Your task to perform on an android device: open chrome and create a bookmark for the current page Image 0: 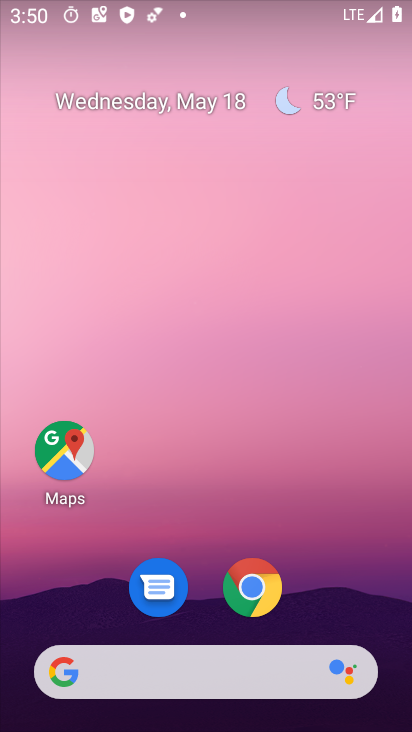
Step 0: drag from (209, 659) to (208, 122)
Your task to perform on an android device: open chrome and create a bookmark for the current page Image 1: 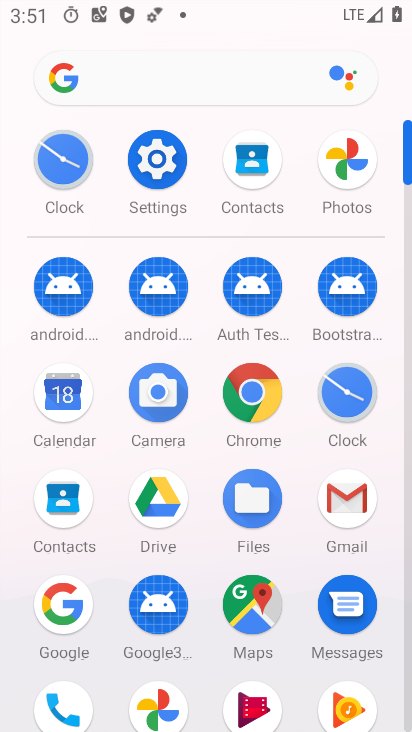
Step 1: drag from (244, 472) to (245, 173)
Your task to perform on an android device: open chrome and create a bookmark for the current page Image 2: 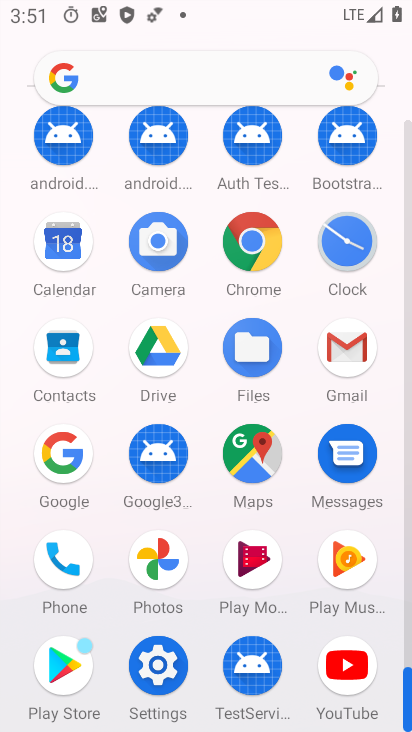
Step 2: click (262, 266)
Your task to perform on an android device: open chrome and create a bookmark for the current page Image 3: 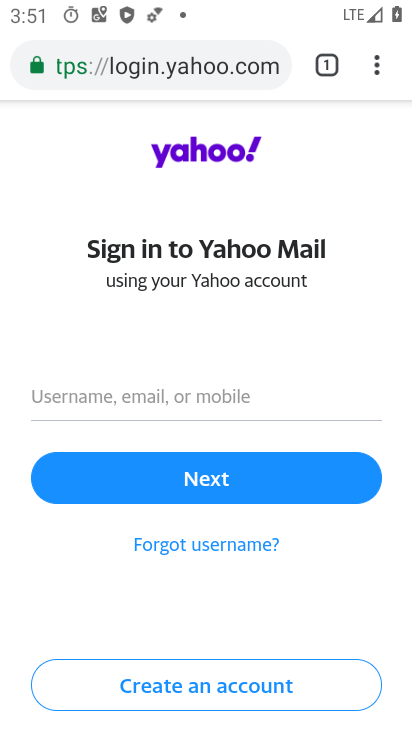
Step 3: click (372, 70)
Your task to perform on an android device: open chrome and create a bookmark for the current page Image 4: 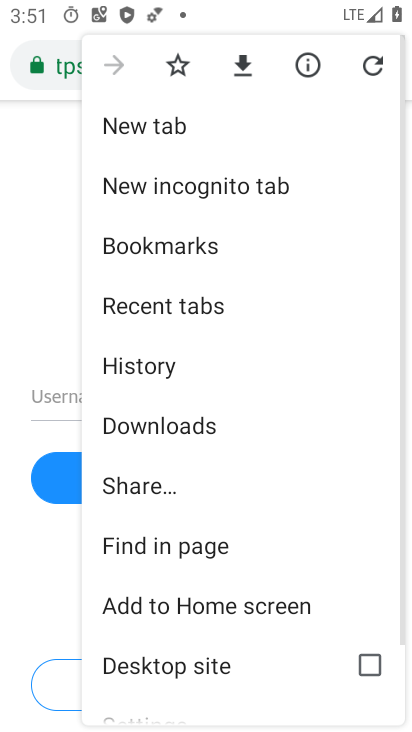
Step 4: click (181, 70)
Your task to perform on an android device: open chrome and create a bookmark for the current page Image 5: 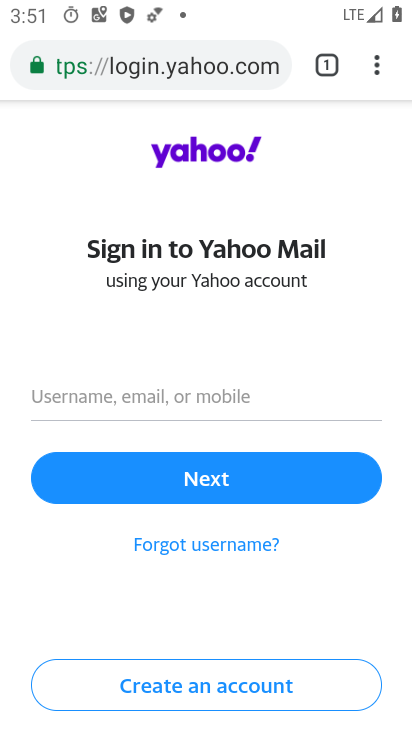
Step 5: task complete